Your task to perform on an android device: Clear the cart on ebay. Search for razer blade on ebay, select the first entry, and add it to the cart. Image 0: 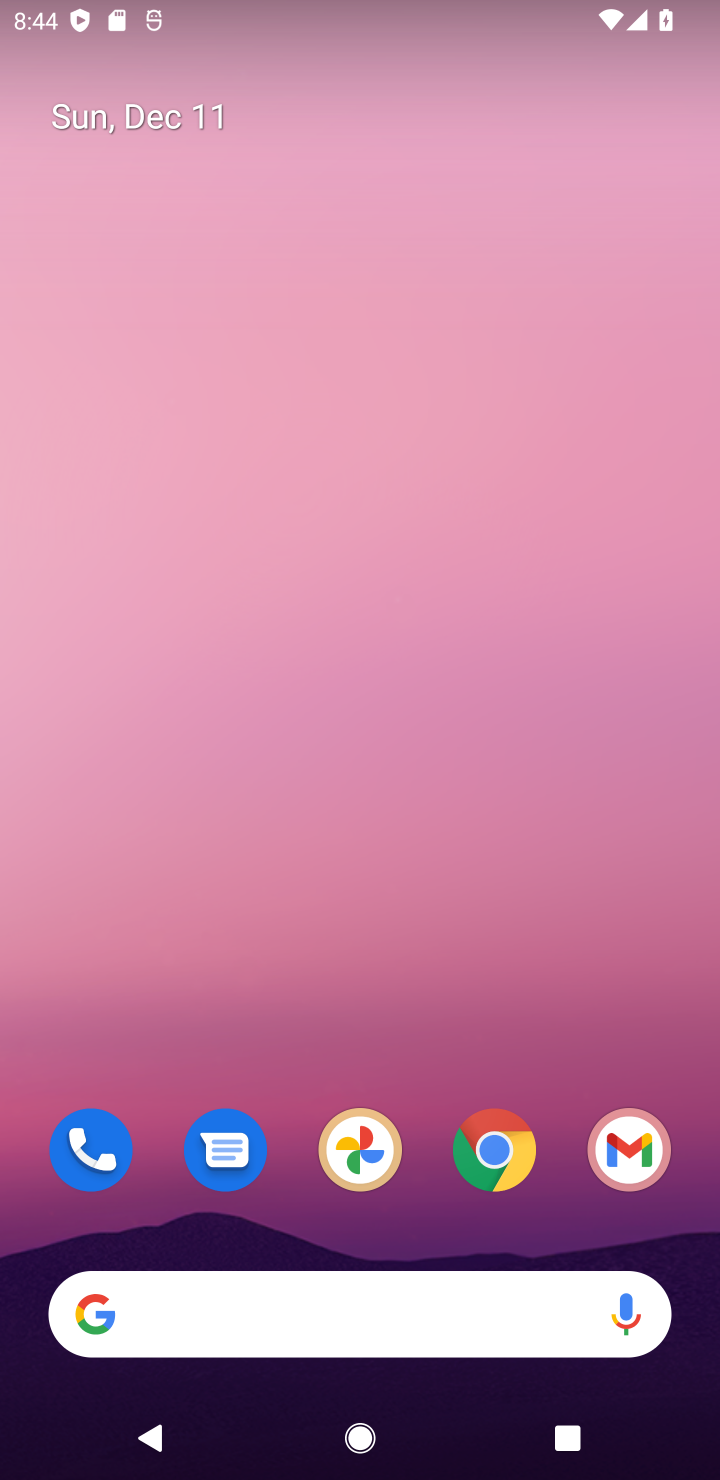
Step 0: click (495, 1144)
Your task to perform on an android device: Clear the cart on ebay. Search for razer blade on ebay, select the first entry, and add it to the cart. Image 1: 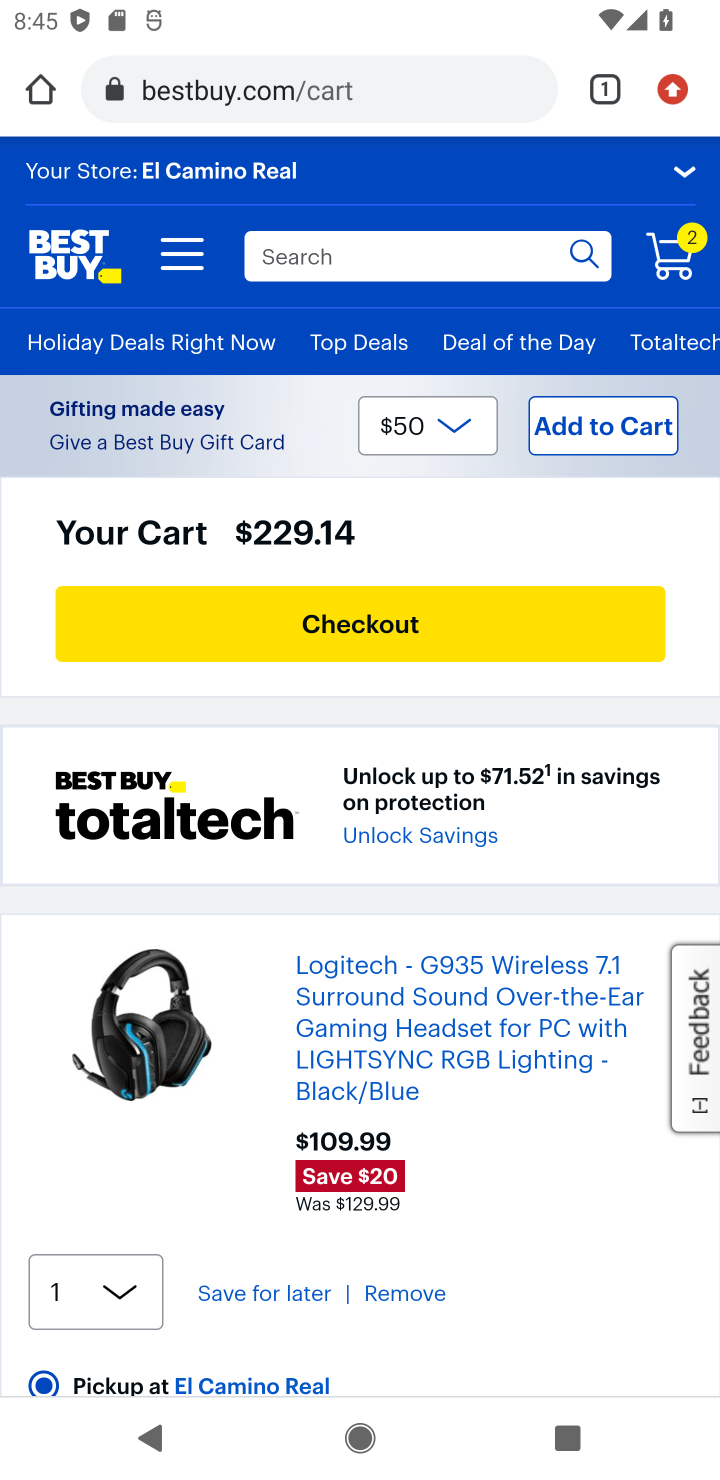
Step 1: click (449, 93)
Your task to perform on an android device: Clear the cart on ebay. Search for razer blade on ebay, select the first entry, and add it to the cart. Image 2: 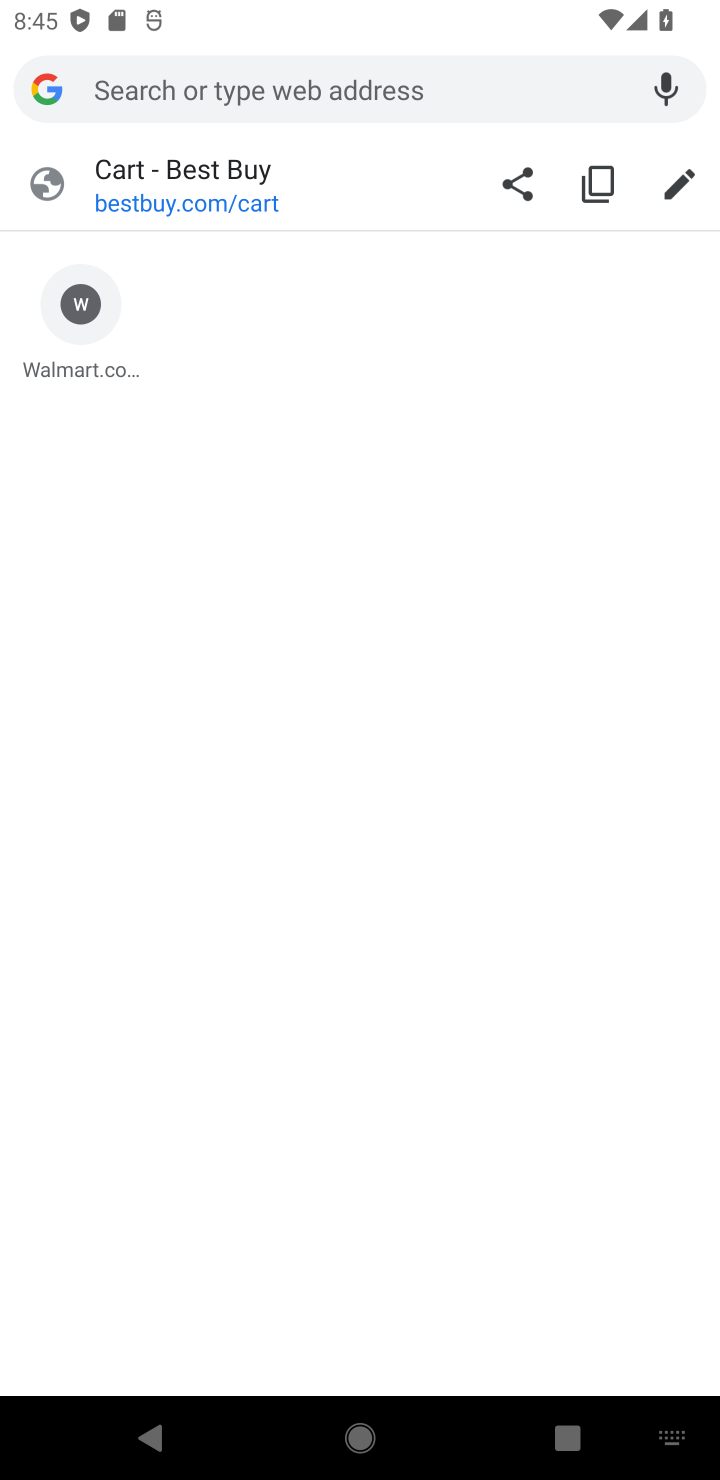
Step 2: type "ebay"
Your task to perform on an android device: Clear the cart on ebay. Search for razer blade on ebay, select the first entry, and add it to the cart. Image 3: 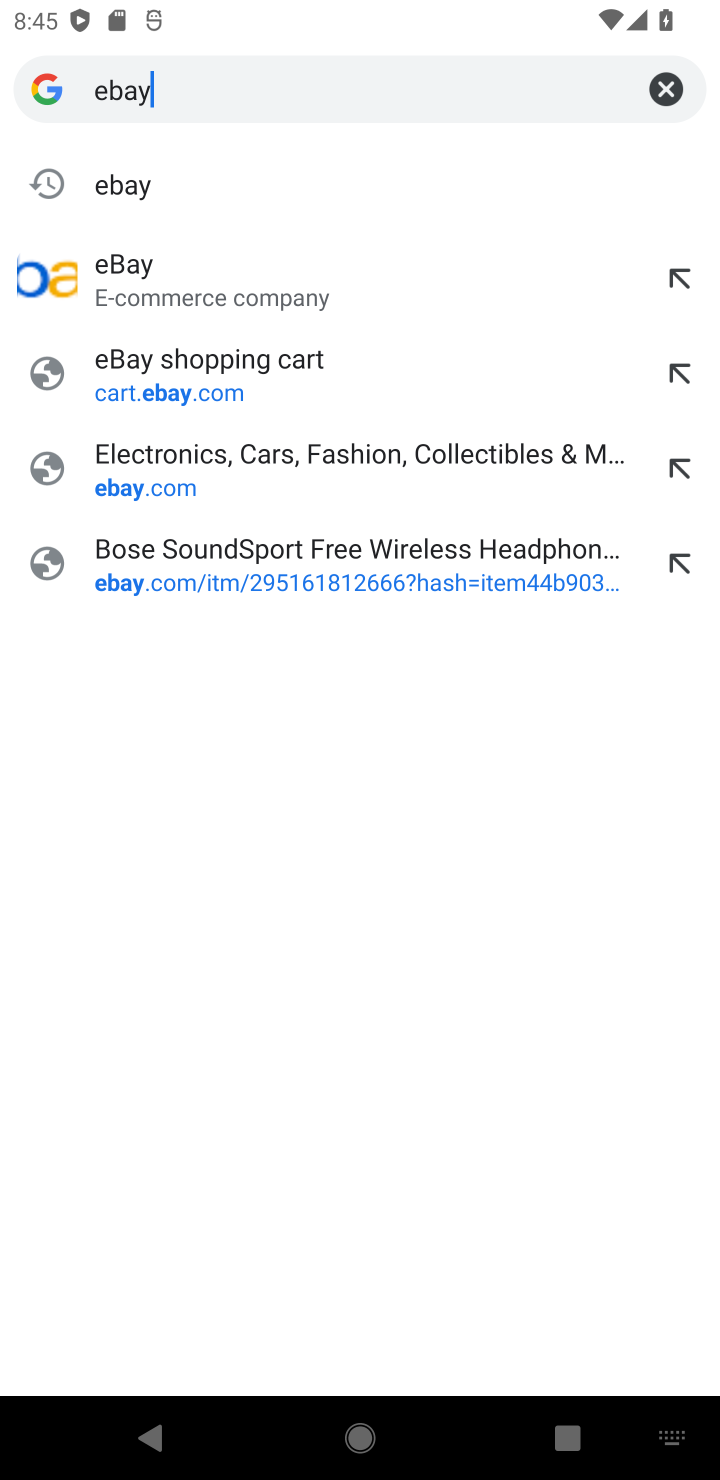
Step 3: click (130, 197)
Your task to perform on an android device: Clear the cart on ebay. Search for razer blade on ebay, select the first entry, and add it to the cart. Image 4: 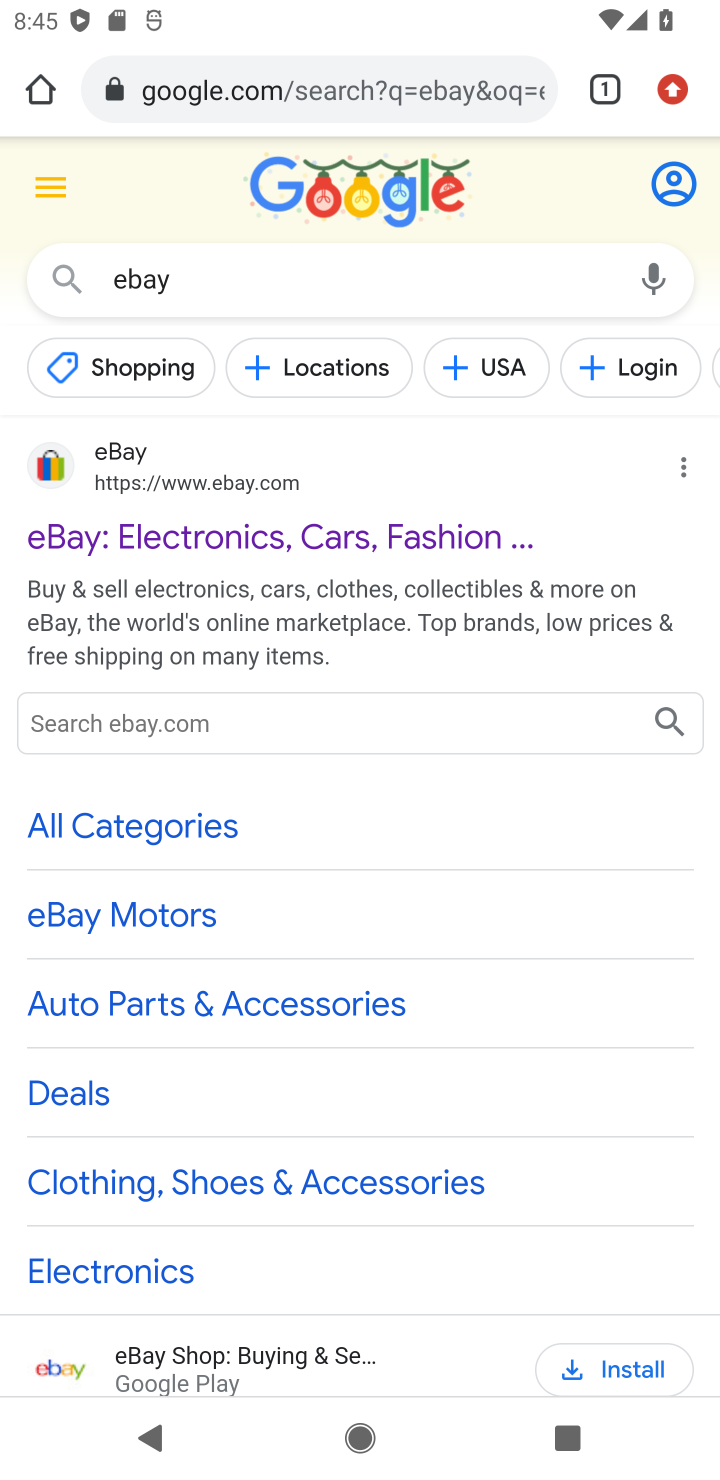
Step 4: click (326, 535)
Your task to perform on an android device: Clear the cart on ebay. Search for razer blade on ebay, select the first entry, and add it to the cart. Image 5: 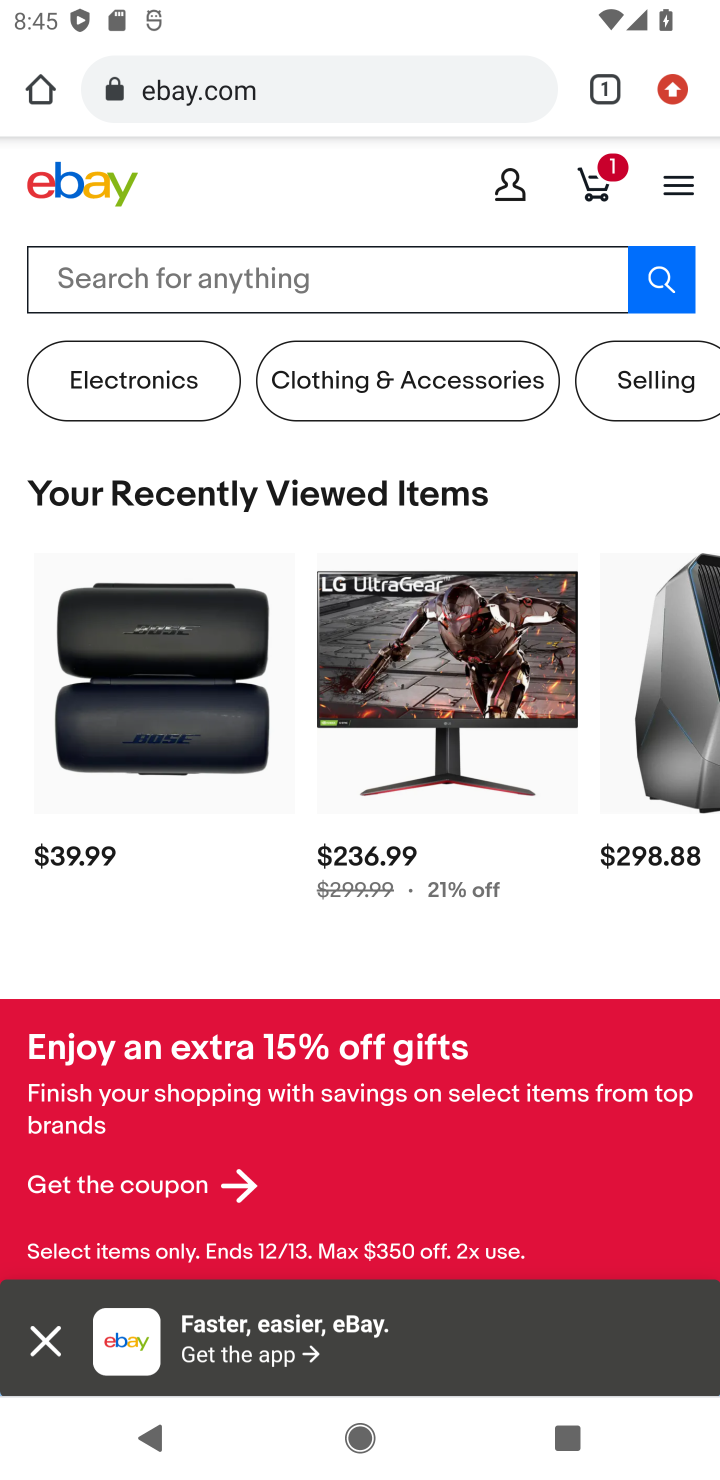
Step 5: click (604, 179)
Your task to perform on an android device: Clear the cart on ebay. Search for razer blade on ebay, select the first entry, and add it to the cart. Image 6: 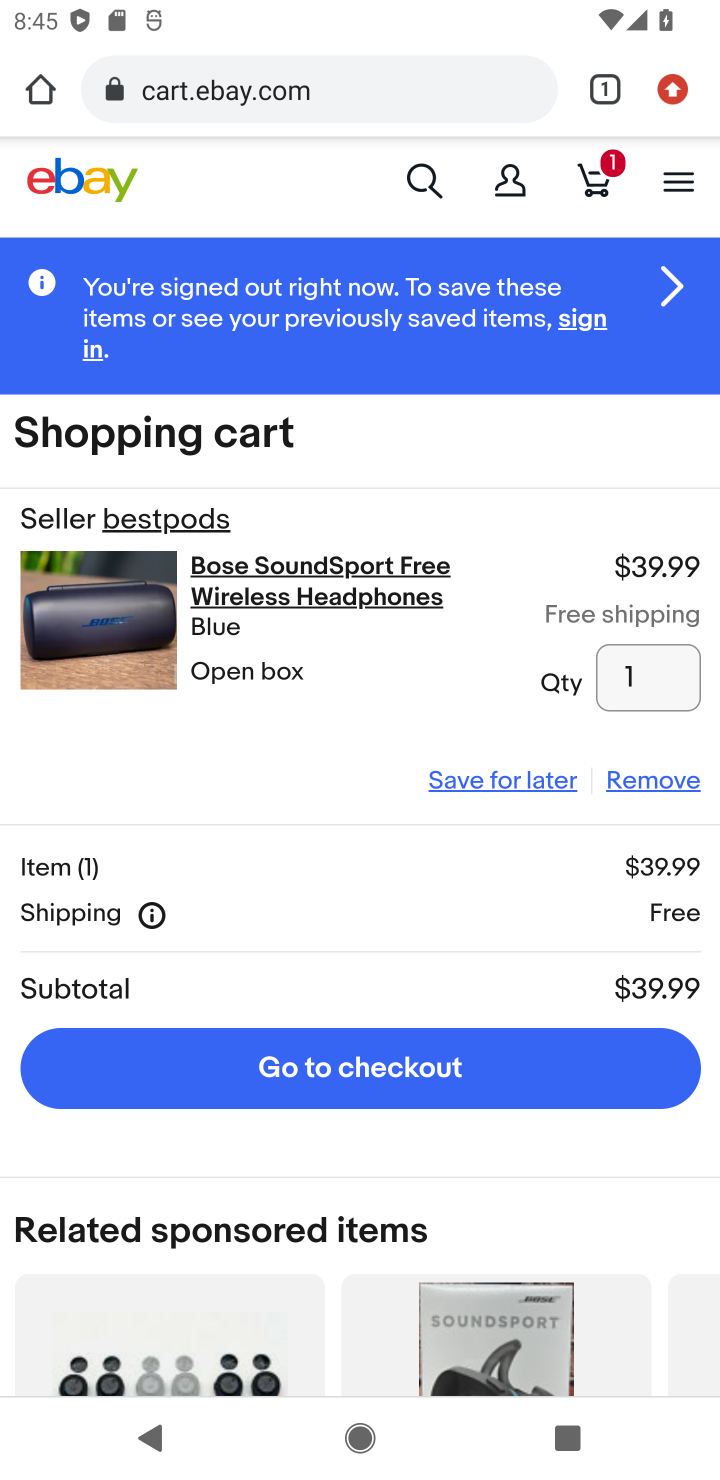
Step 6: click (638, 772)
Your task to perform on an android device: Clear the cart on ebay. Search for razer blade on ebay, select the first entry, and add it to the cart. Image 7: 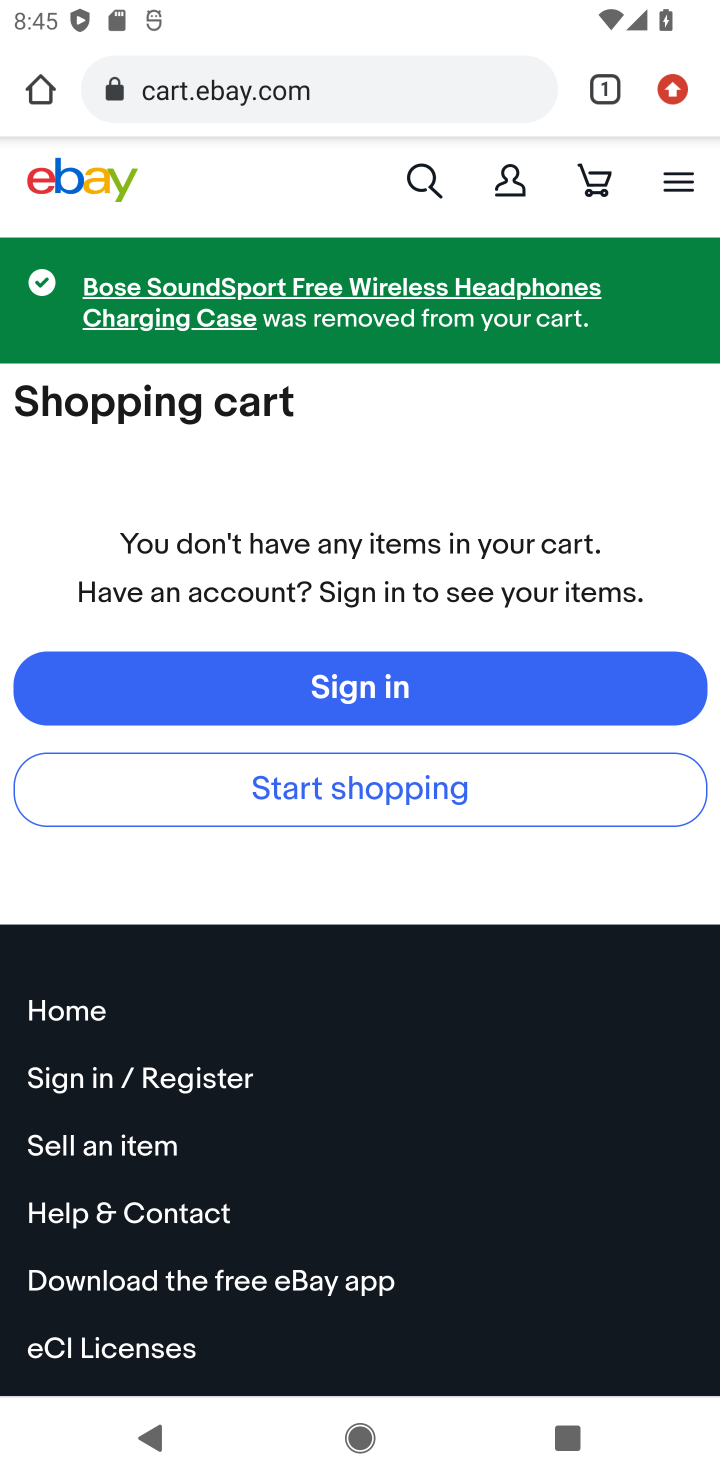
Step 7: click (424, 174)
Your task to perform on an android device: Clear the cart on ebay. Search for razer blade on ebay, select the first entry, and add it to the cart. Image 8: 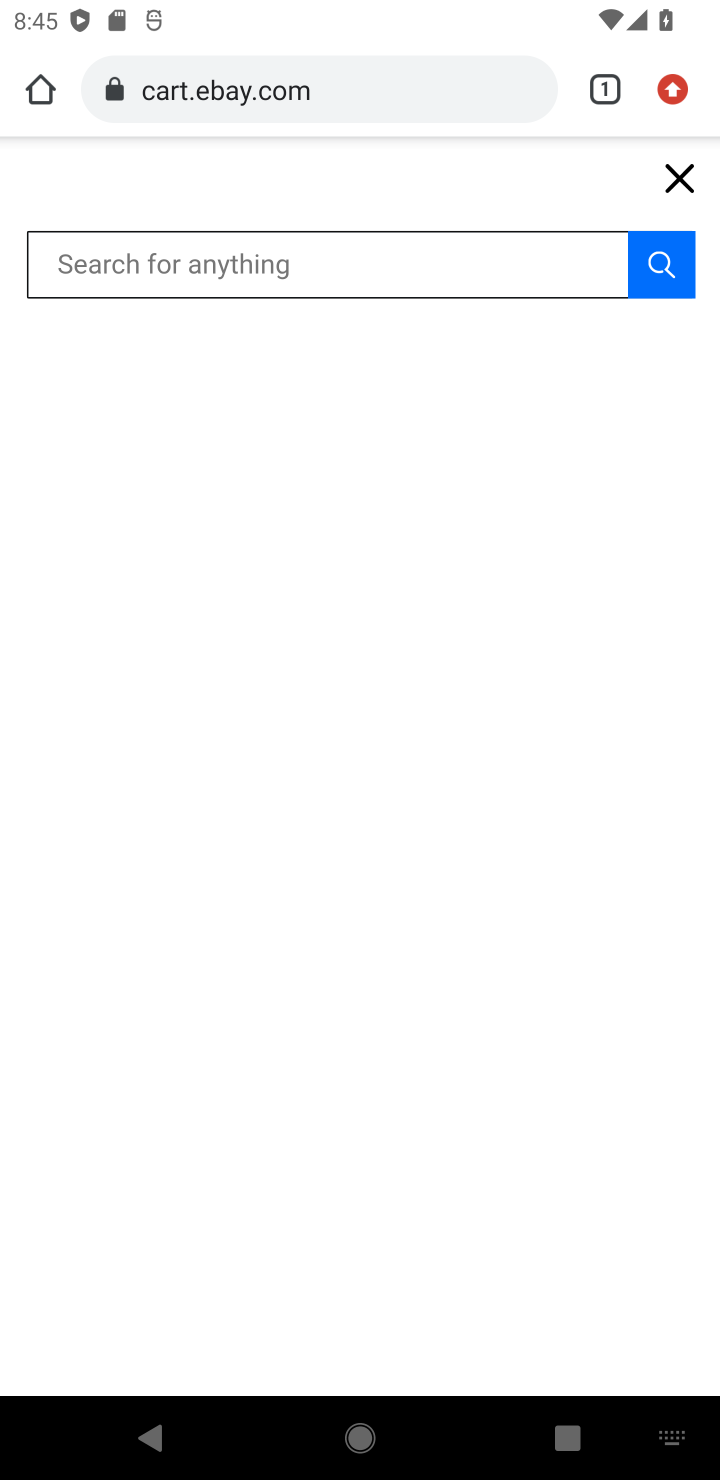
Step 8: click (330, 264)
Your task to perform on an android device: Clear the cart on ebay. Search for razer blade on ebay, select the first entry, and add it to the cart. Image 9: 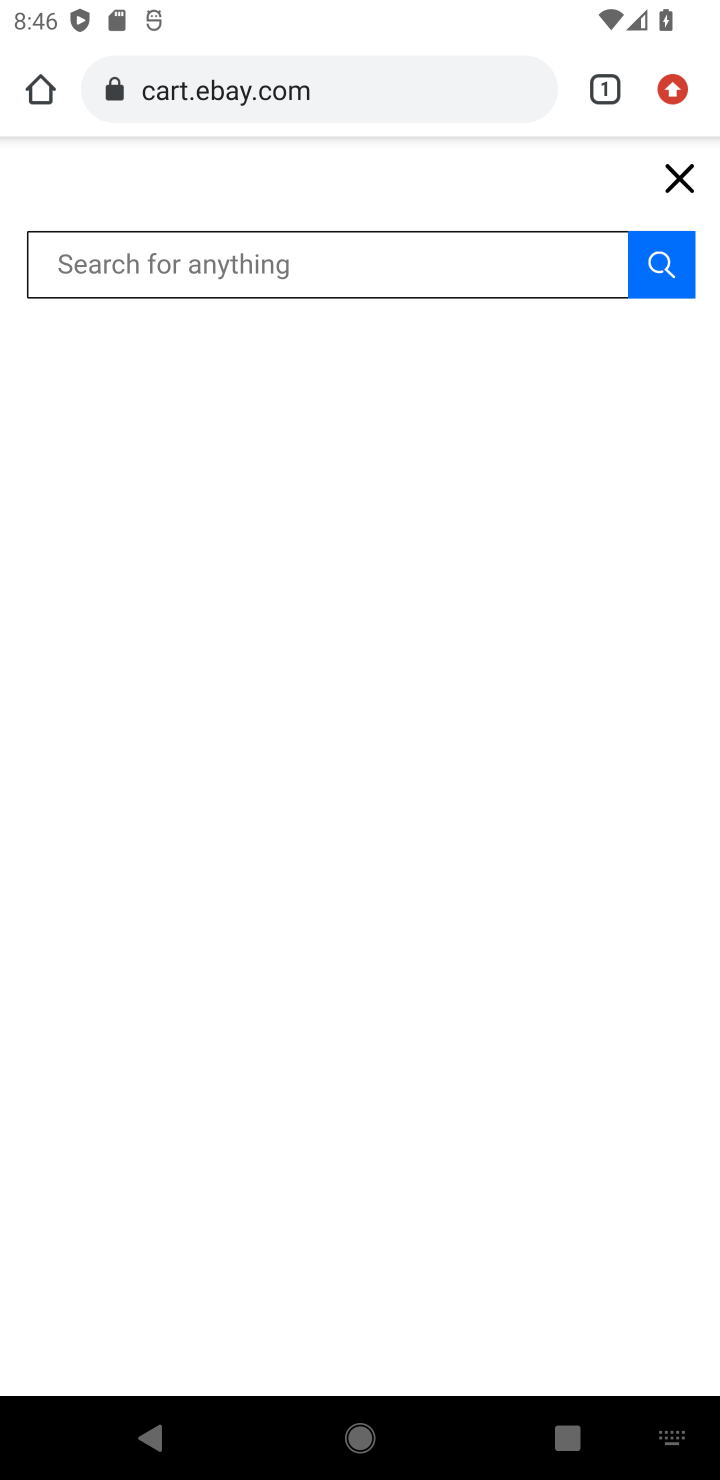
Step 9: type "razer blade"
Your task to perform on an android device: Clear the cart on ebay. Search for razer blade on ebay, select the first entry, and add it to the cart. Image 10: 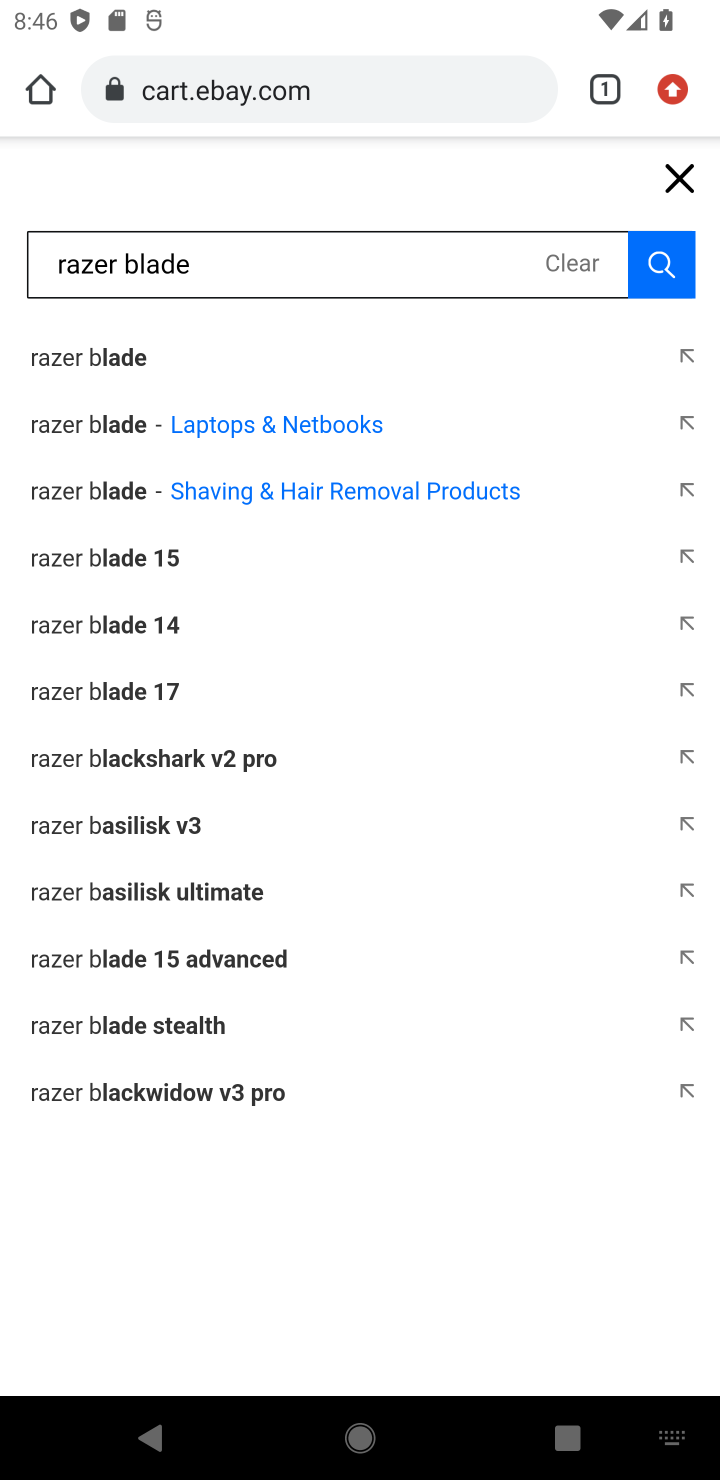
Step 10: click (109, 356)
Your task to perform on an android device: Clear the cart on ebay. Search for razer blade on ebay, select the first entry, and add it to the cart. Image 11: 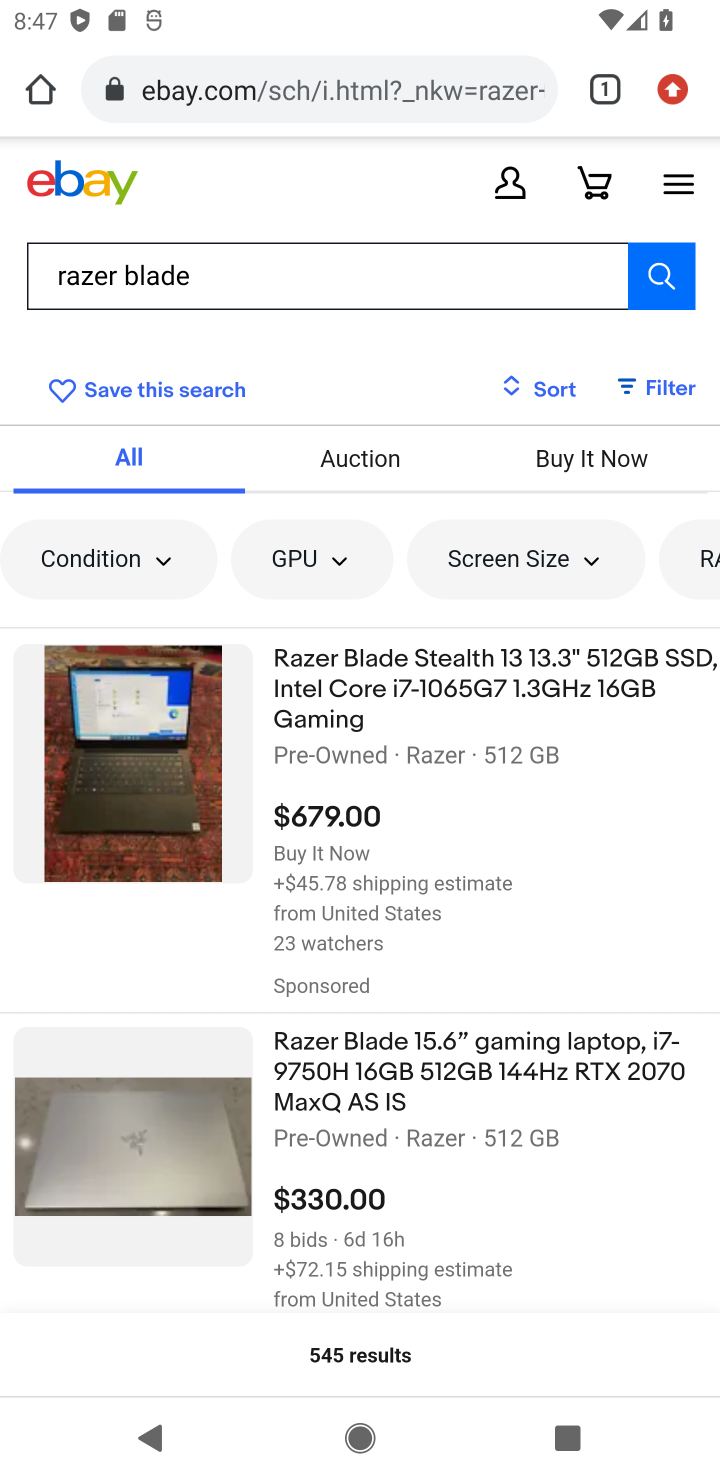
Step 11: click (502, 696)
Your task to perform on an android device: Clear the cart on ebay. Search for razer blade on ebay, select the first entry, and add it to the cart. Image 12: 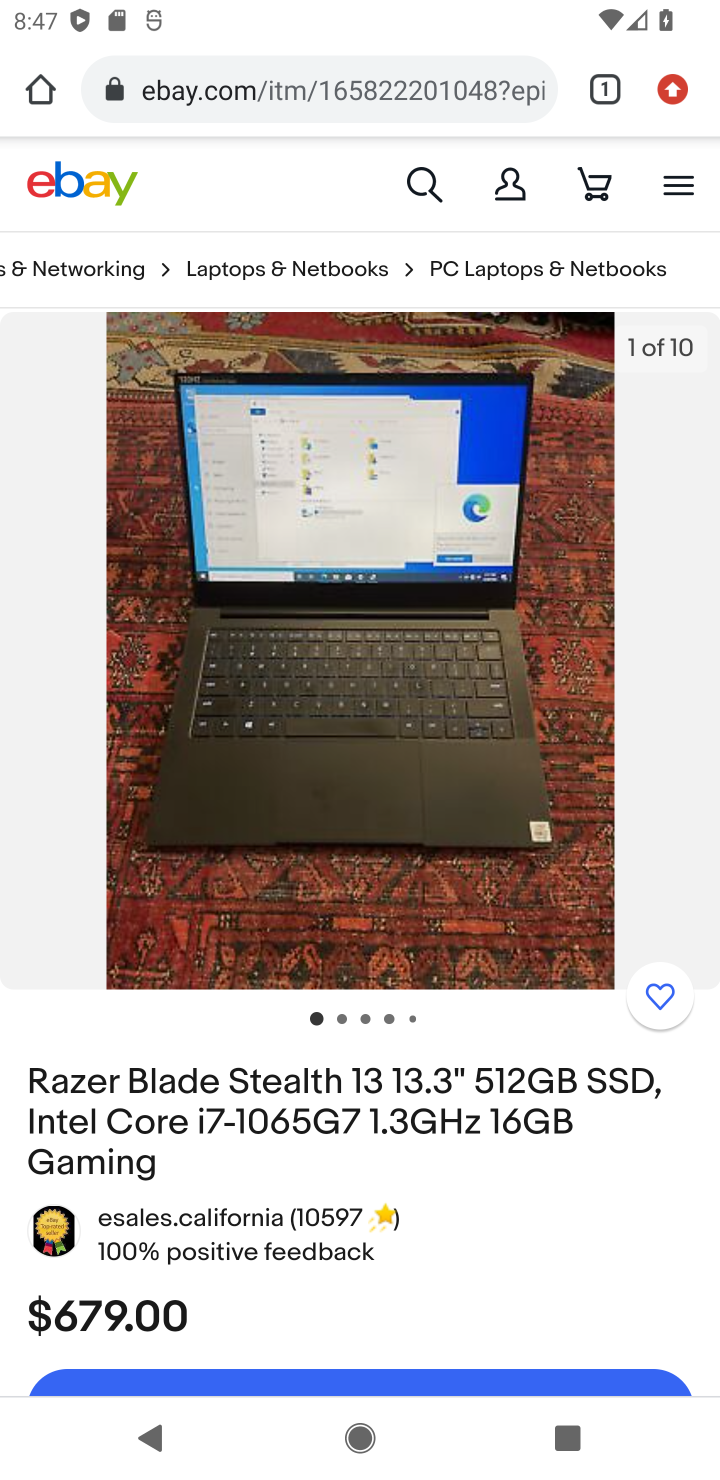
Step 12: drag from (459, 1286) to (409, 701)
Your task to perform on an android device: Clear the cart on ebay. Search for razer blade on ebay, select the first entry, and add it to the cart. Image 13: 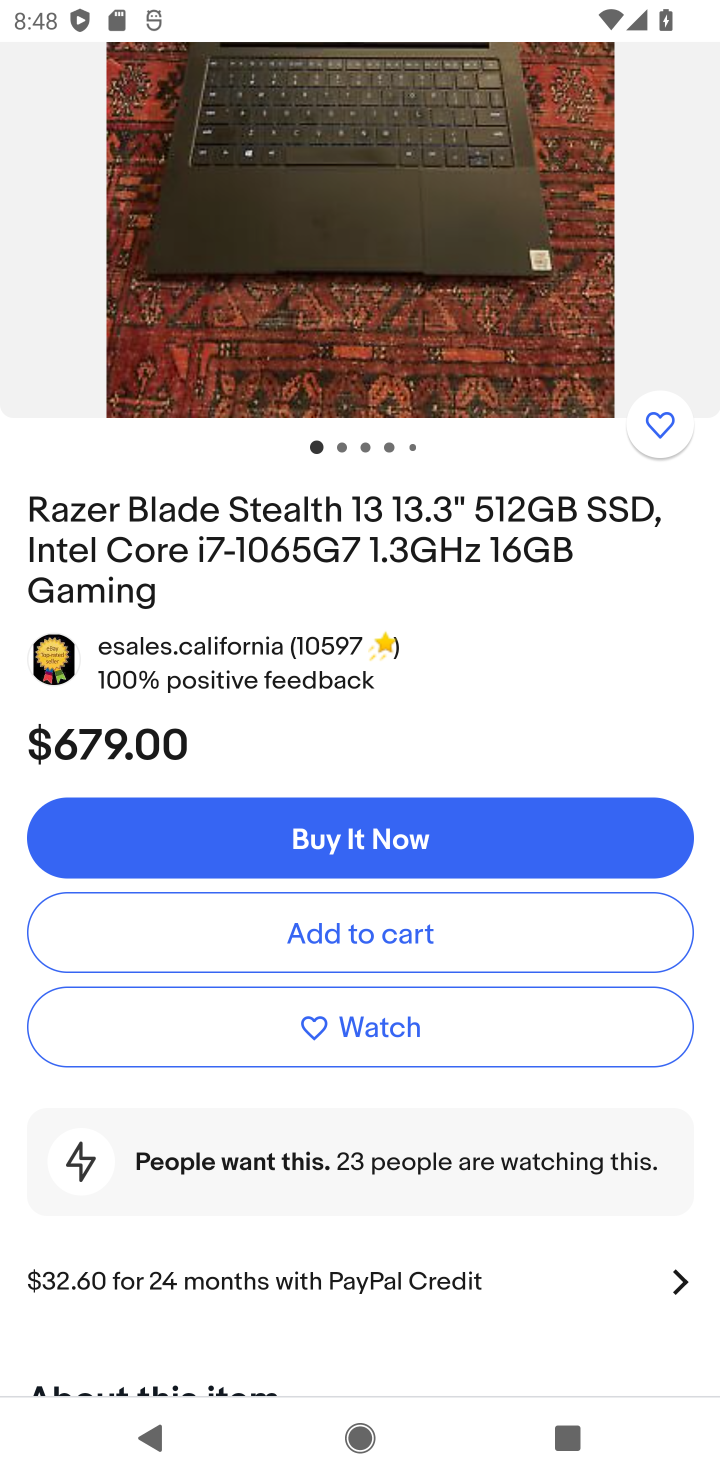
Step 13: click (534, 940)
Your task to perform on an android device: Clear the cart on ebay. Search for razer blade on ebay, select the first entry, and add it to the cart. Image 14: 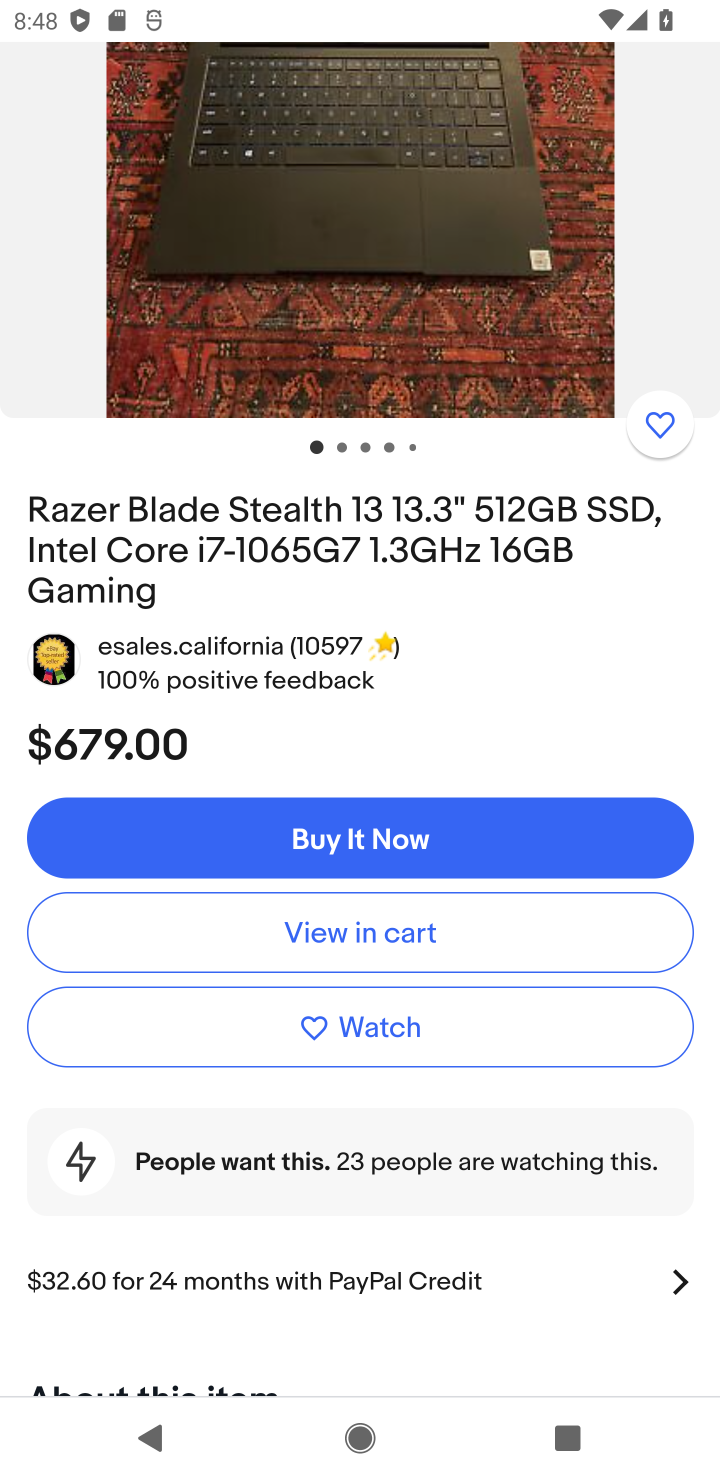
Step 14: task complete